Your task to perform on an android device: What's the weather going to be tomorrow? Image 0: 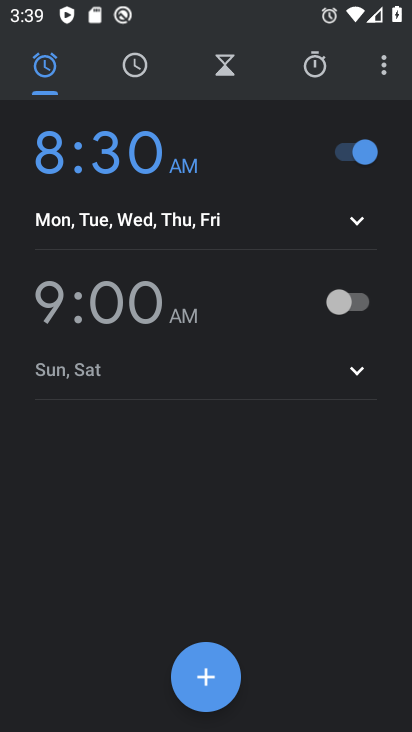
Step 0: press home button
Your task to perform on an android device: What's the weather going to be tomorrow? Image 1: 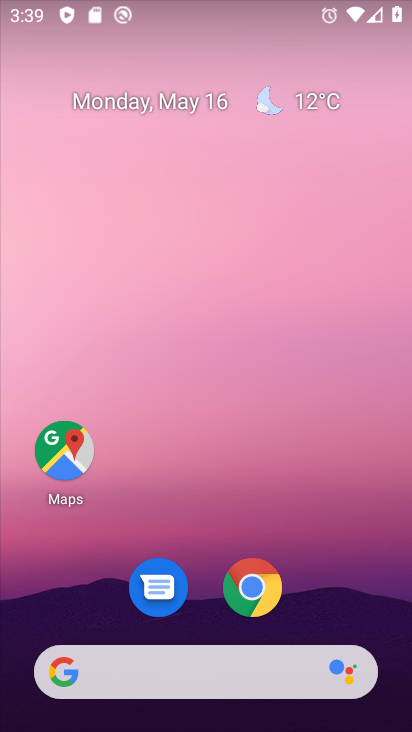
Step 1: click (301, 100)
Your task to perform on an android device: What's the weather going to be tomorrow? Image 2: 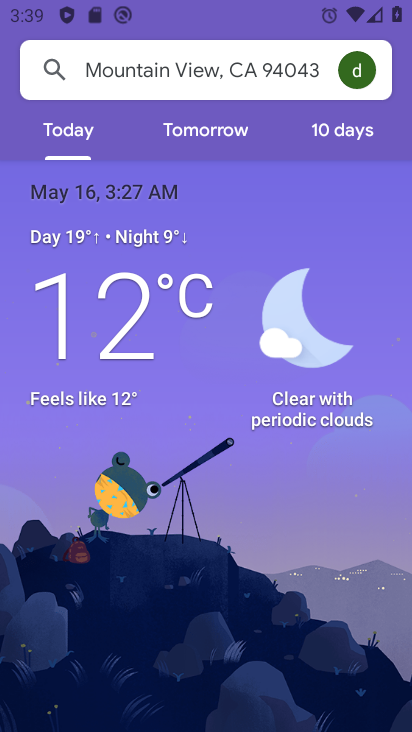
Step 2: click (241, 127)
Your task to perform on an android device: What's the weather going to be tomorrow? Image 3: 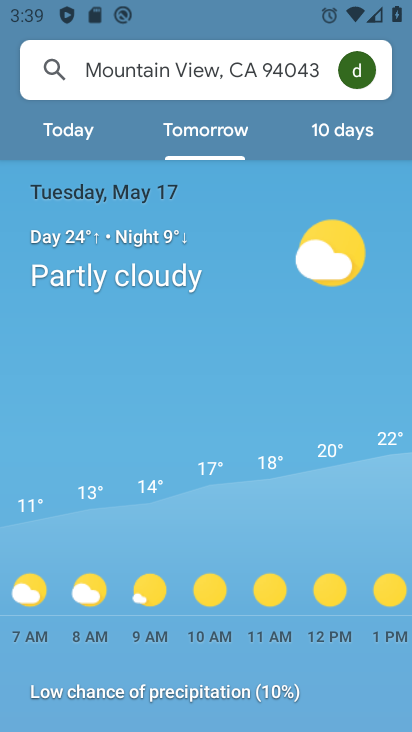
Step 3: task complete